Your task to perform on an android device: Go to Yahoo.com Image 0: 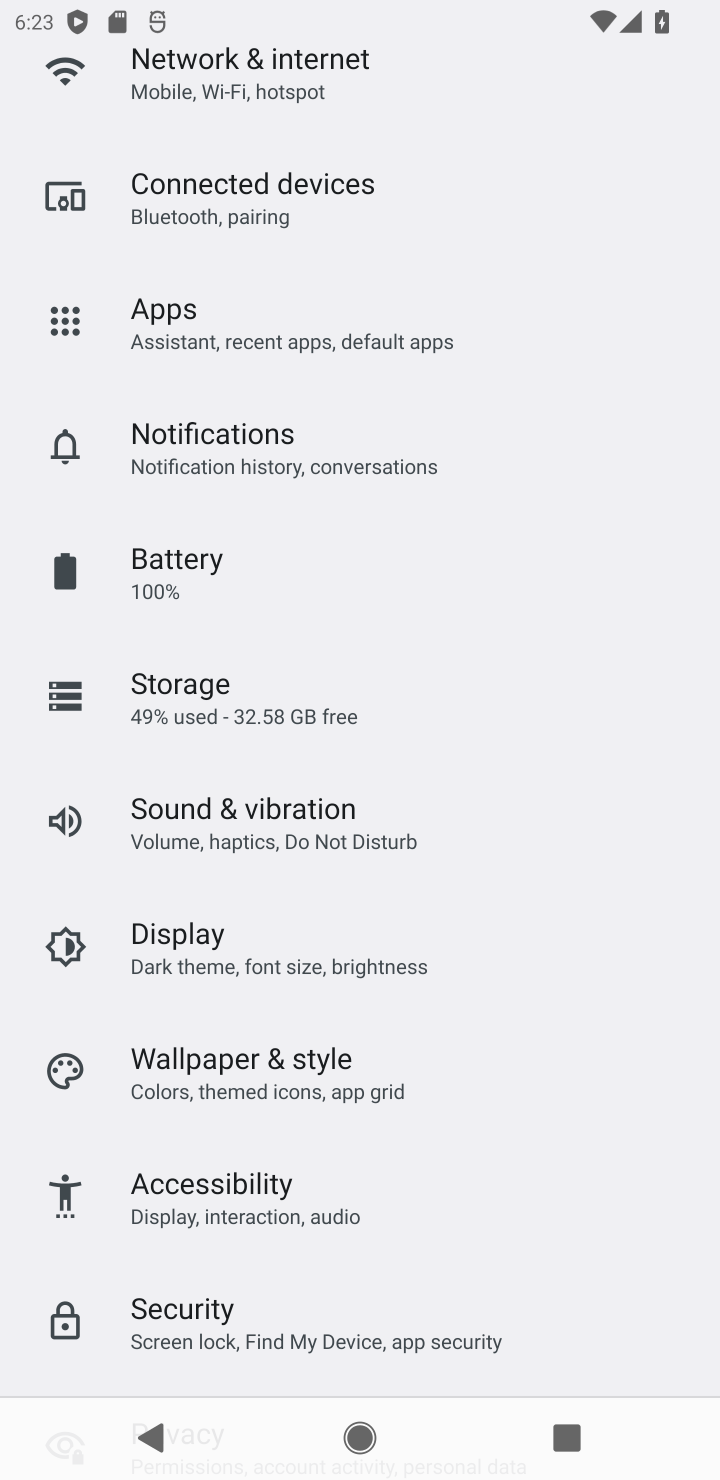
Step 0: press home button
Your task to perform on an android device: Go to Yahoo.com Image 1: 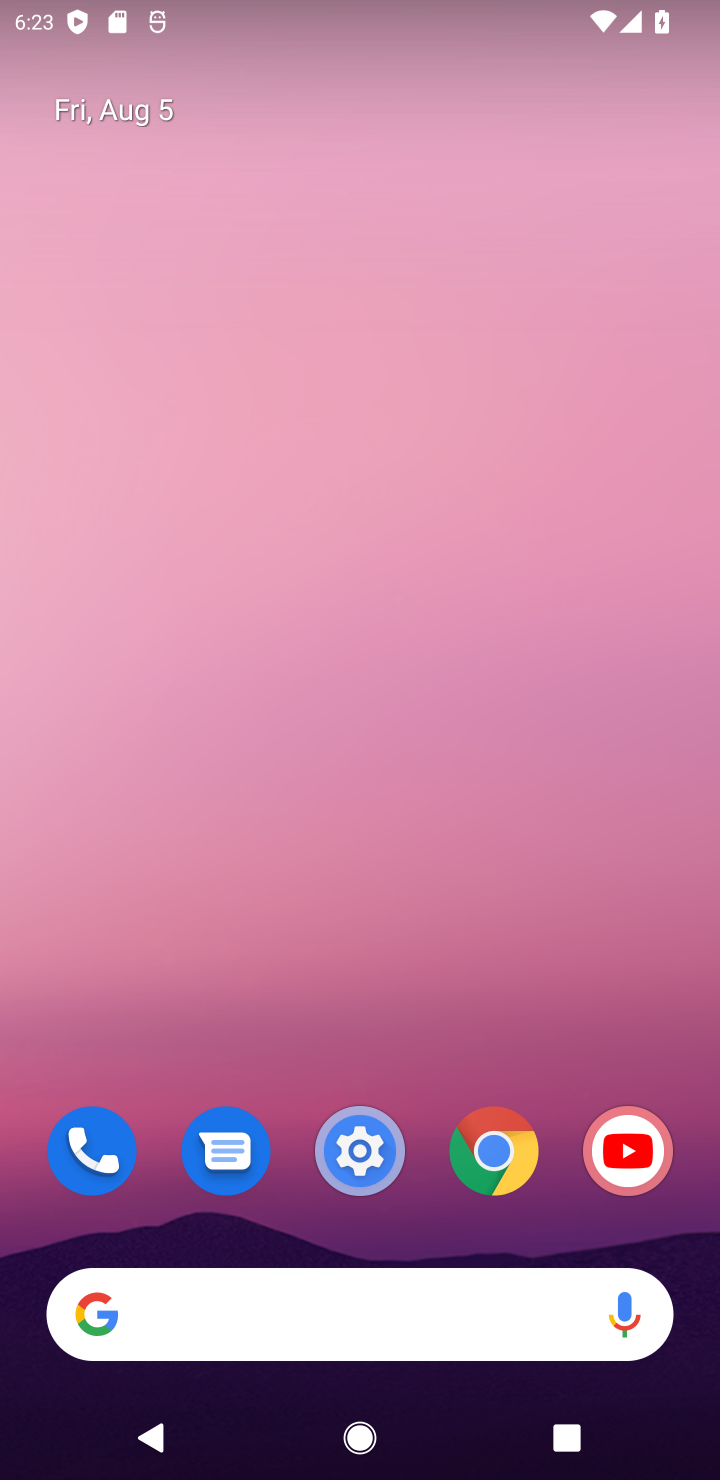
Step 1: click (486, 1181)
Your task to perform on an android device: Go to Yahoo.com Image 2: 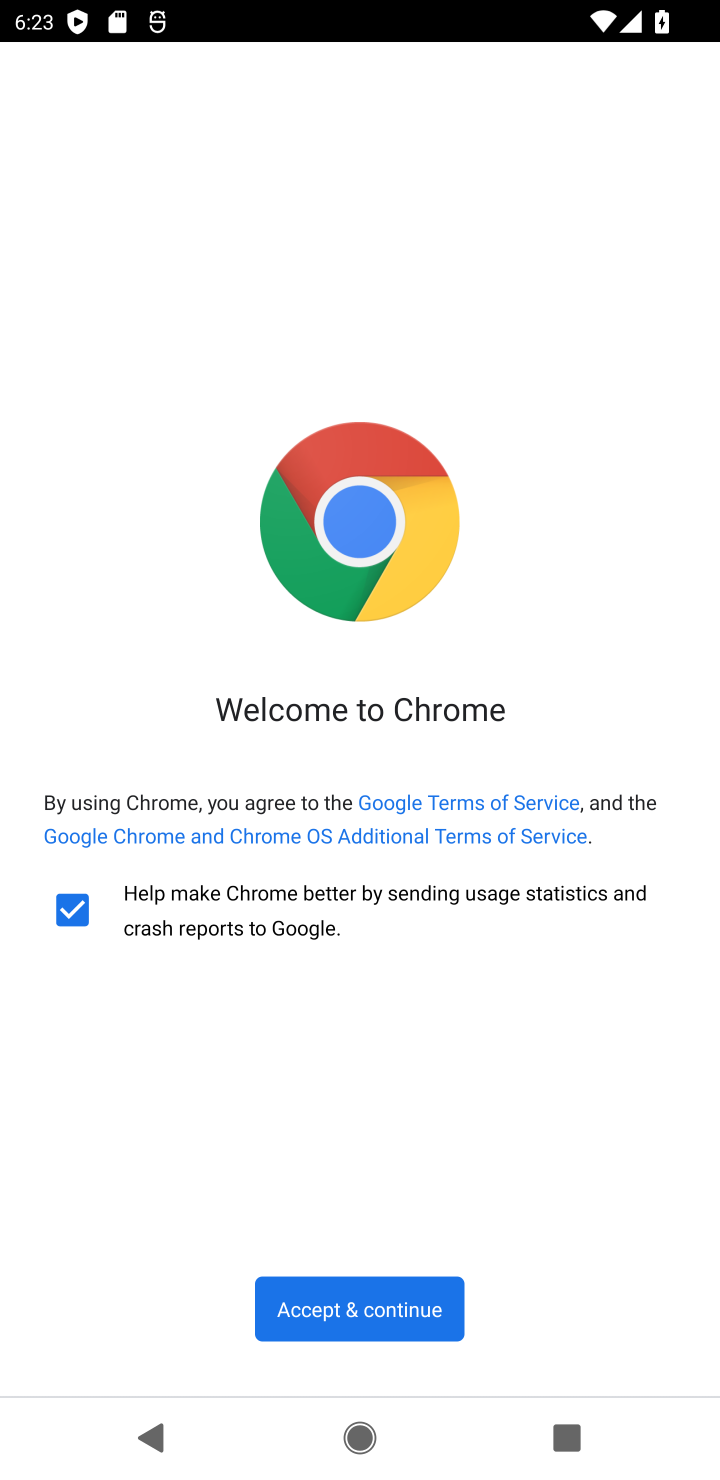
Step 2: click (375, 1301)
Your task to perform on an android device: Go to Yahoo.com Image 3: 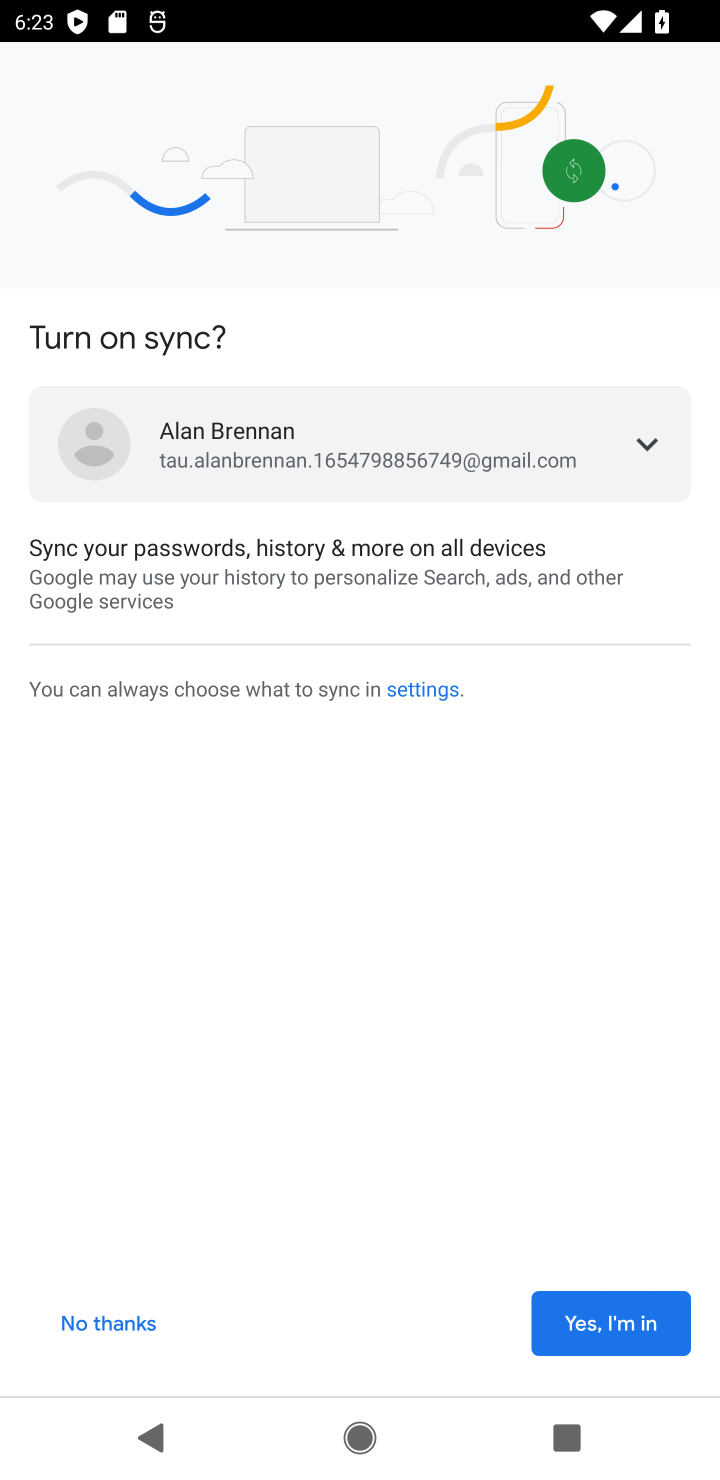
Step 3: click (657, 1304)
Your task to perform on an android device: Go to Yahoo.com Image 4: 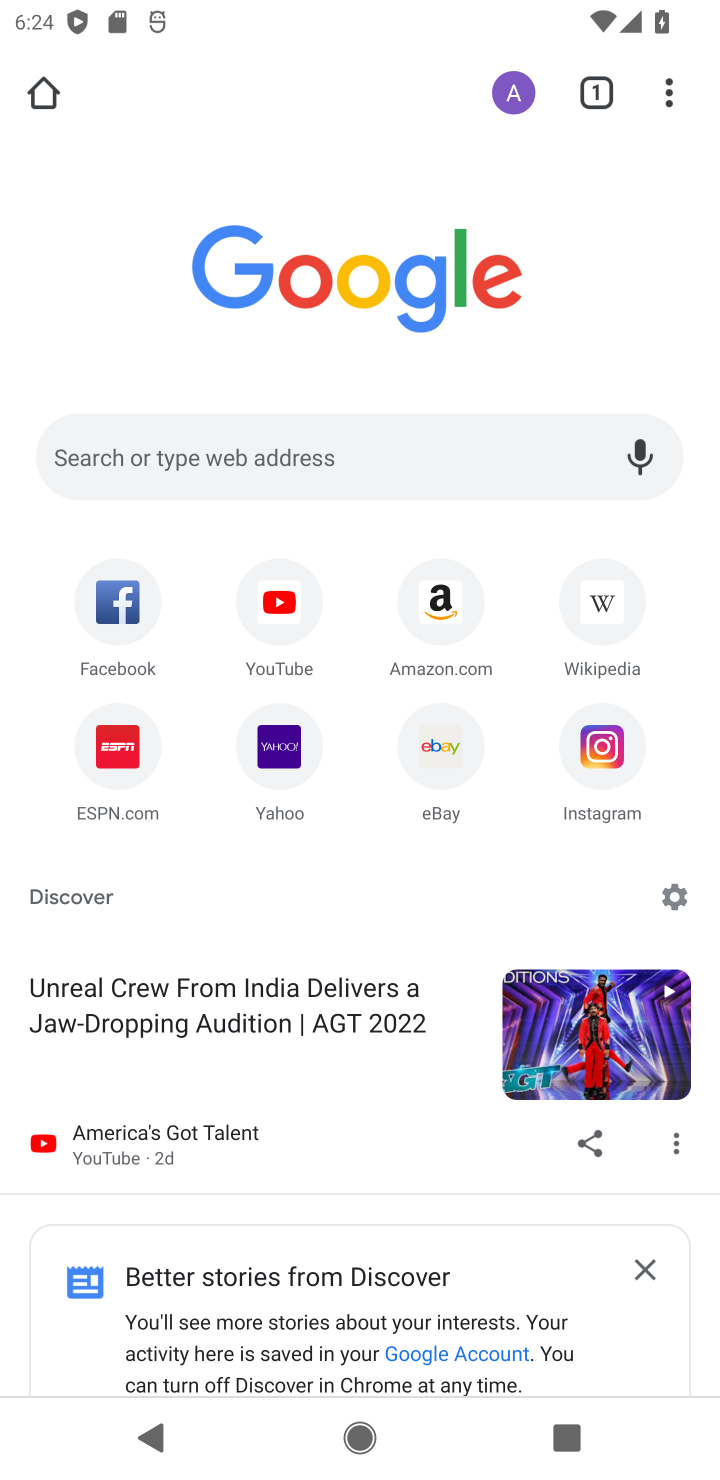
Step 4: click (253, 742)
Your task to perform on an android device: Go to Yahoo.com Image 5: 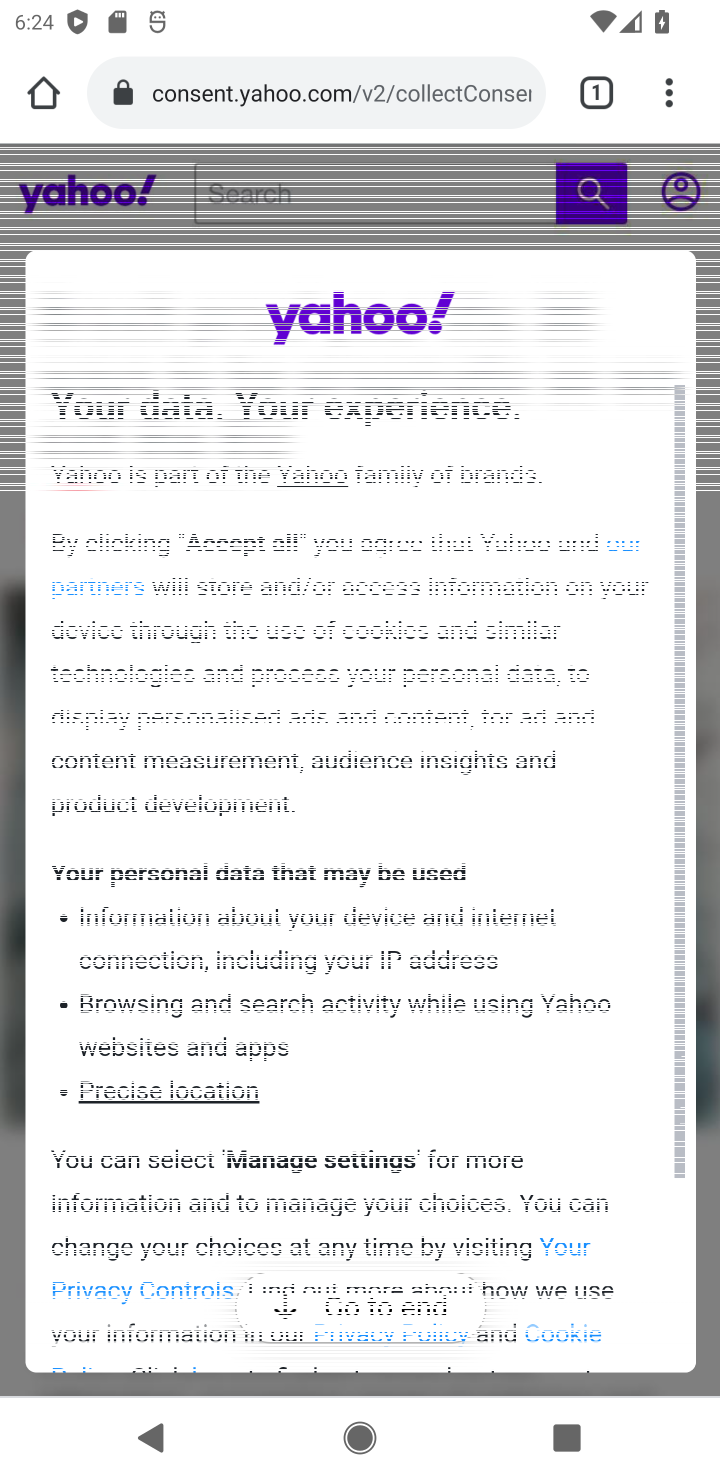
Step 5: task complete